Your task to perform on an android device: check android version Image 0: 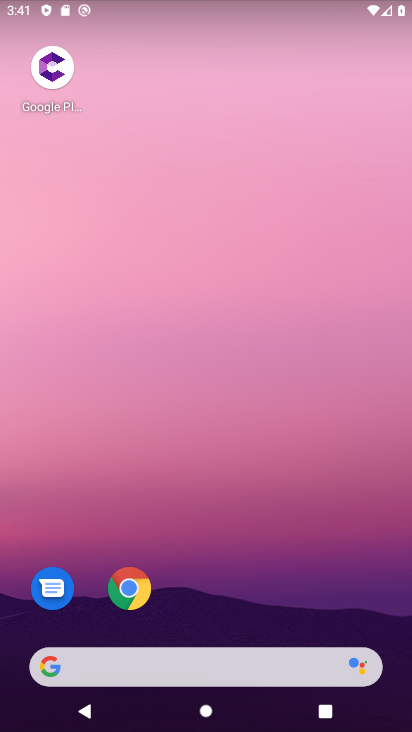
Step 0: drag from (182, 606) to (192, 77)
Your task to perform on an android device: check android version Image 1: 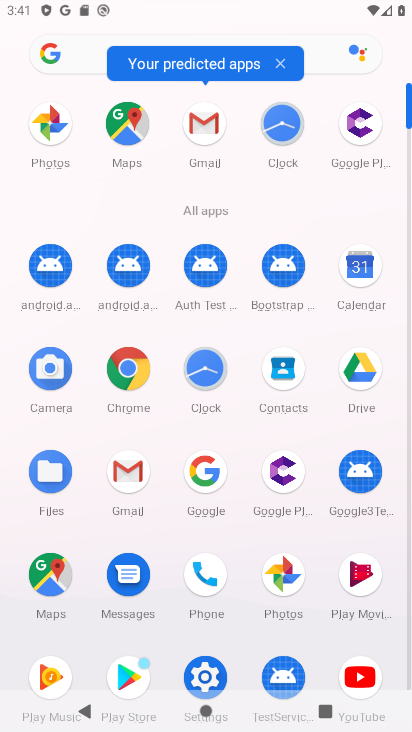
Step 1: click (199, 661)
Your task to perform on an android device: check android version Image 2: 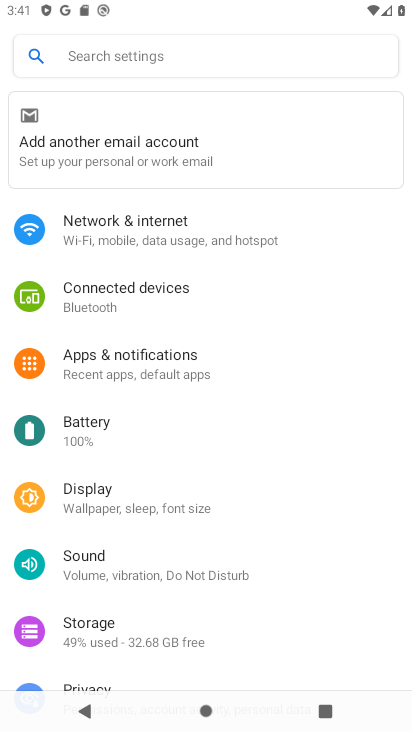
Step 2: task complete